Your task to perform on an android device: Go to wifi settings Image 0: 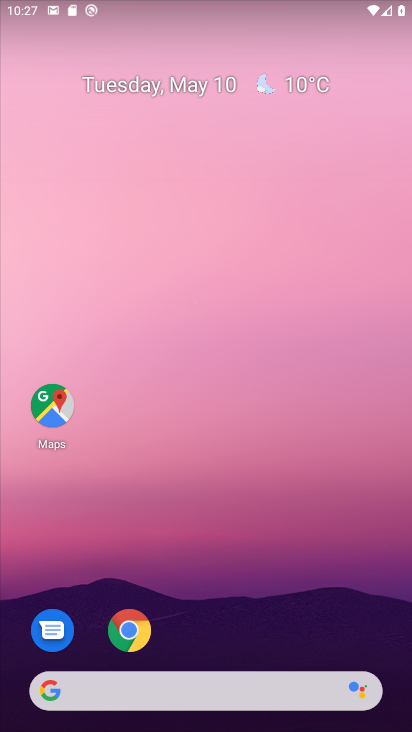
Step 0: drag from (249, 575) to (236, 64)
Your task to perform on an android device: Go to wifi settings Image 1: 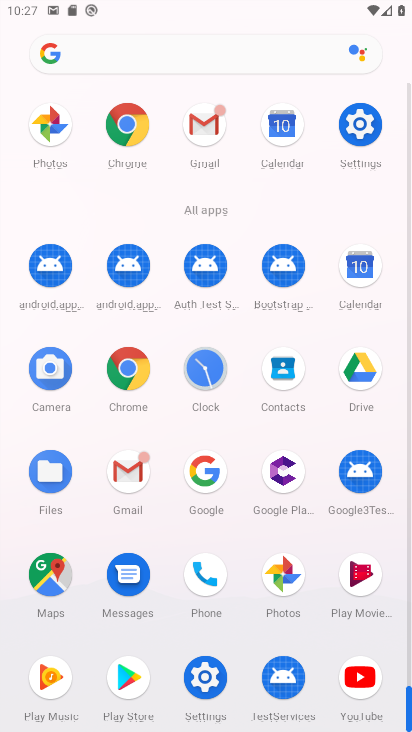
Step 1: click (355, 130)
Your task to perform on an android device: Go to wifi settings Image 2: 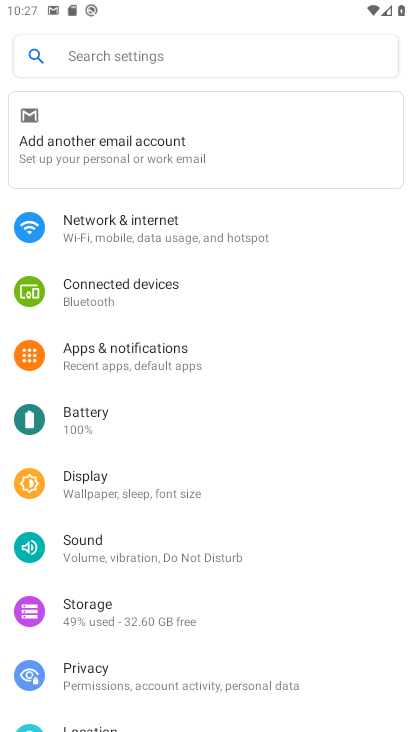
Step 2: click (157, 213)
Your task to perform on an android device: Go to wifi settings Image 3: 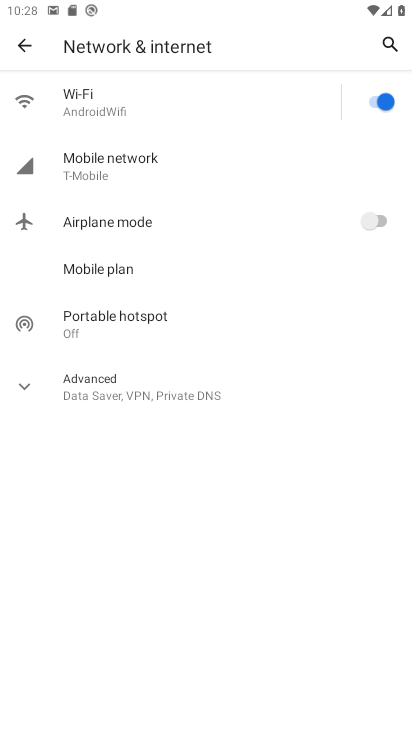
Step 3: task complete